Your task to perform on an android device: change the clock display to show seconds Image 0: 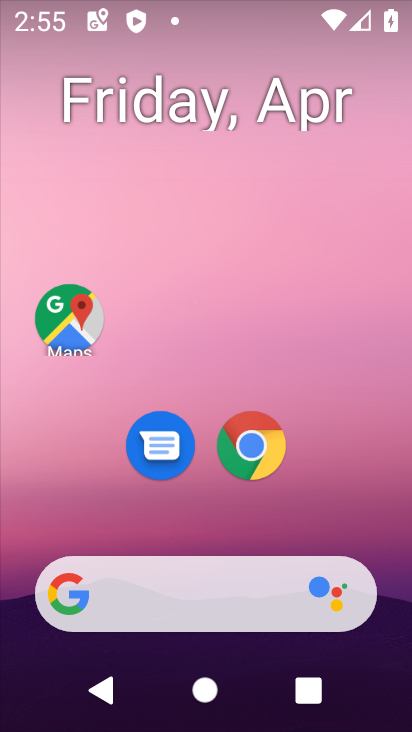
Step 0: click (255, 83)
Your task to perform on an android device: change the clock display to show seconds Image 1: 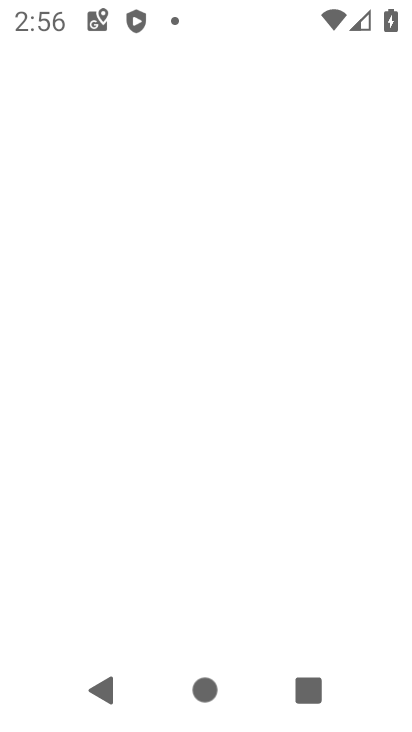
Step 1: press home button
Your task to perform on an android device: change the clock display to show seconds Image 2: 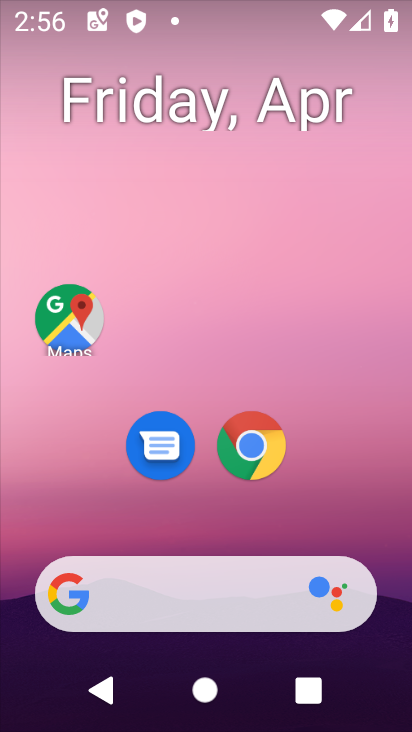
Step 2: drag from (330, 499) to (344, 70)
Your task to perform on an android device: change the clock display to show seconds Image 3: 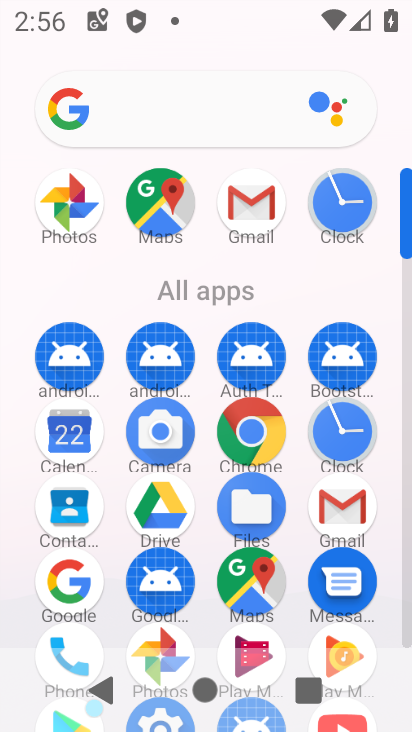
Step 3: drag from (207, 526) to (206, 266)
Your task to perform on an android device: change the clock display to show seconds Image 4: 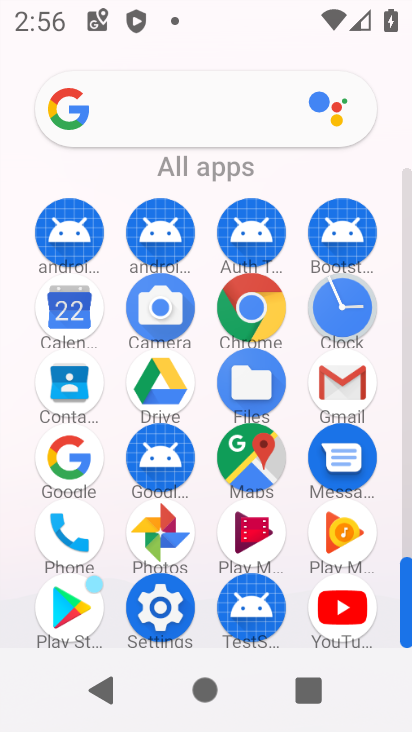
Step 4: click (345, 313)
Your task to perform on an android device: change the clock display to show seconds Image 5: 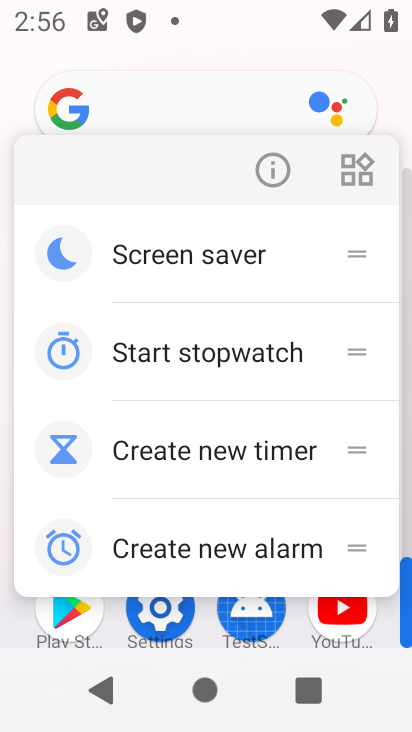
Step 5: click (387, 118)
Your task to perform on an android device: change the clock display to show seconds Image 6: 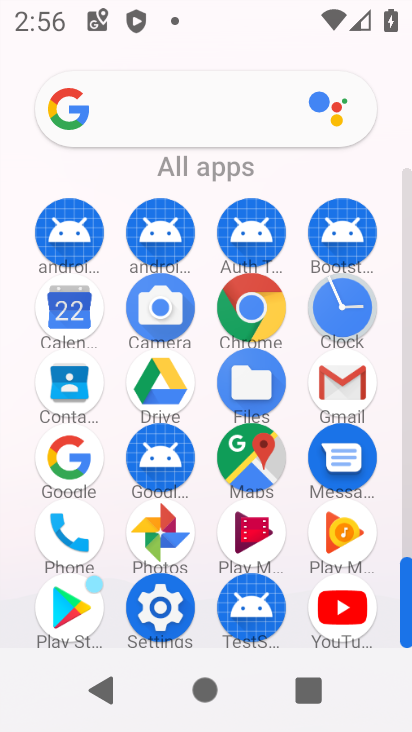
Step 6: click (342, 306)
Your task to perform on an android device: change the clock display to show seconds Image 7: 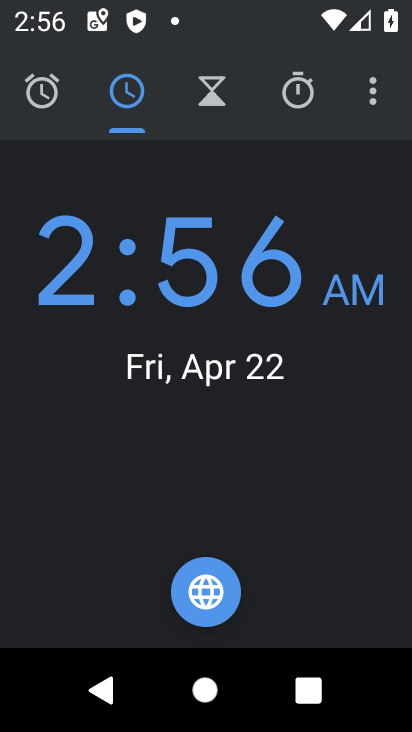
Step 7: click (371, 94)
Your task to perform on an android device: change the clock display to show seconds Image 8: 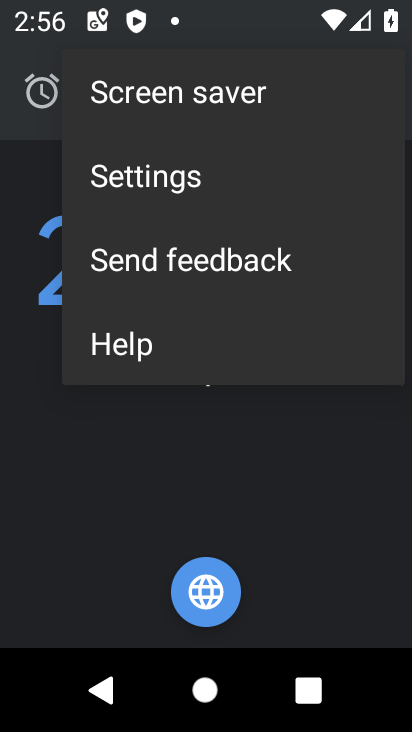
Step 8: click (159, 181)
Your task to perform on an android device: change the clock display to show seconds Image 9: 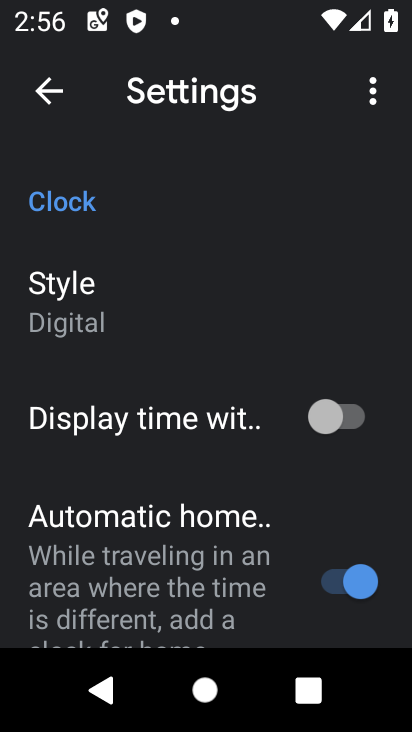
Step 9: click (324, 426)
Your task to perform on an android device: change the clock display to show seconds Image 10: 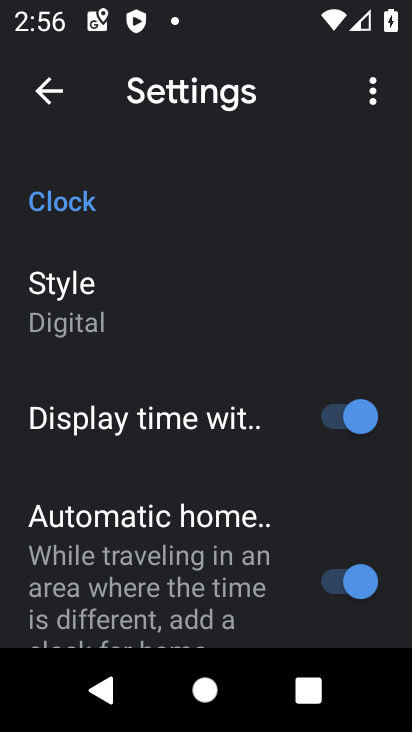
Step 10: task complete